Your task to perform on an android device: empty trash in google photos Image 0: 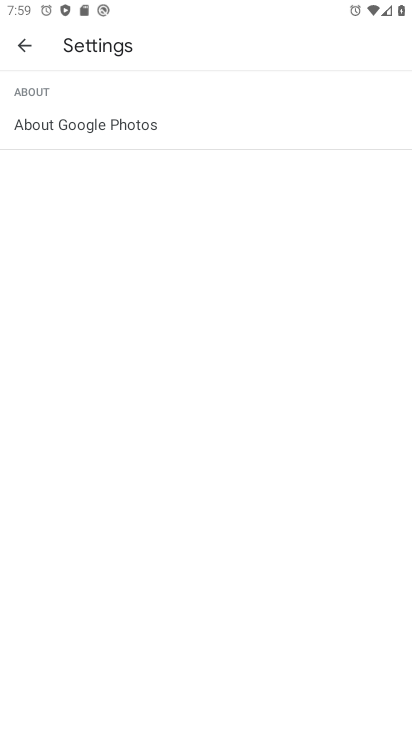
Step 0: press home button
Your task to perform on an android device: empty trash in google photos Image 1: 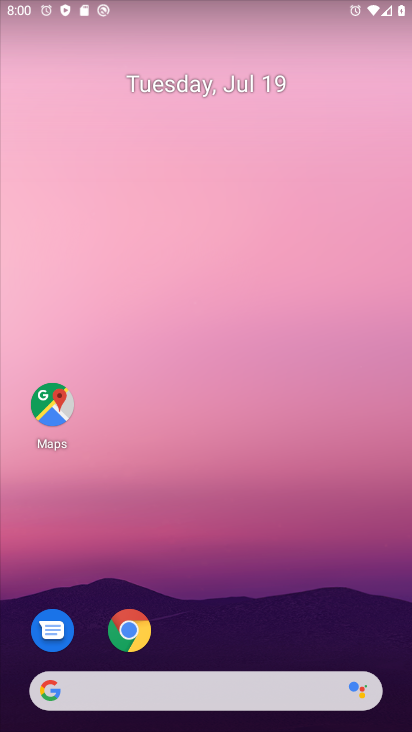
Step 1: drag from (235, 528) to (251, 228)
Your task to perform on an android device: empty trash in google photos Image 2: 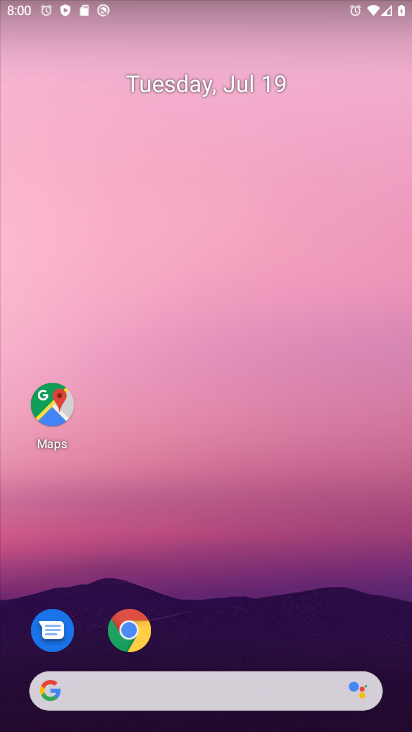
Step 2: drag from (268, 615) to (230, 272)
Your task to perform on an android device: empty trash in google photos Image 3: 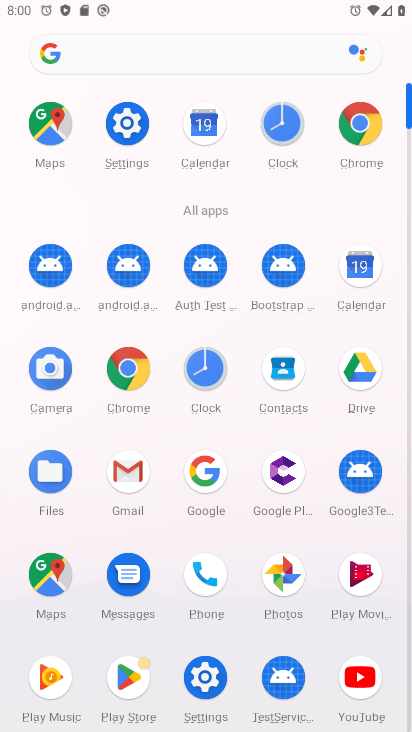
Step 3: click (269, 576)
Your task to perform on an android device: empty trash in google photos Image 4: 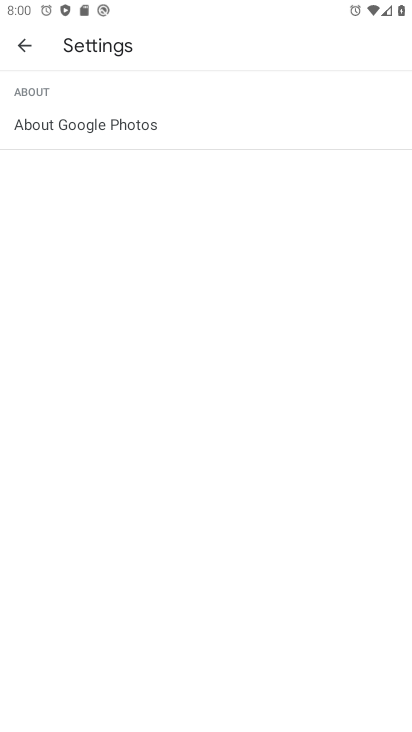
Step 4: click (21, 51)
Your task to perform on an android device: empty trash in google photos Image 5: 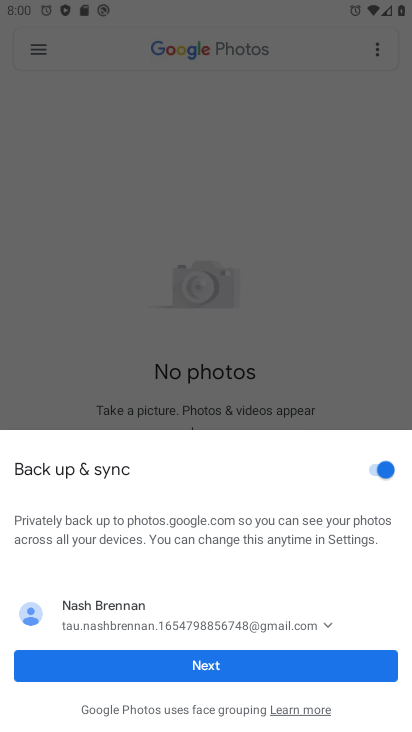
Step 5: click (227, 358)
Your task to perform on an android device: empty trash in google photos Image 6: 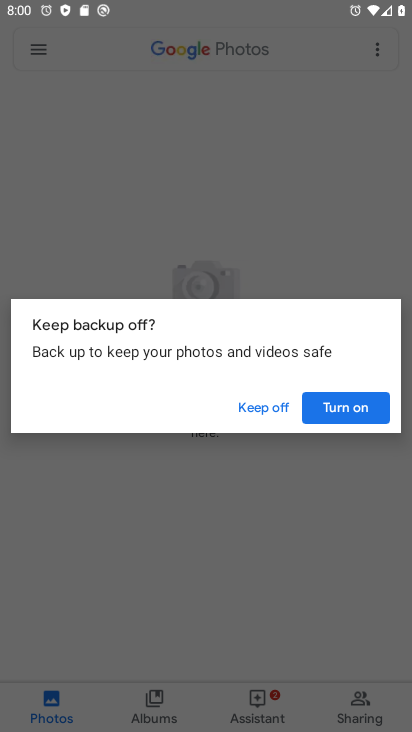
Step 6: click (268, 406)
Your task to perform on an android device: empty trash in google photos Image 7: 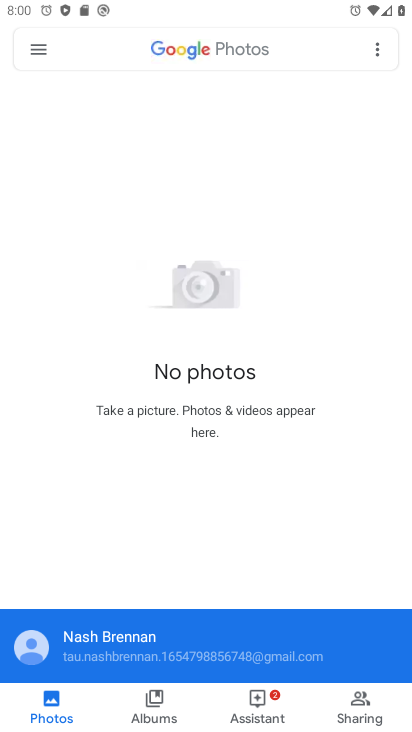
Step 7: click (35, 57)
Your task to perform on an android device: empty trash in google photos Image 8: 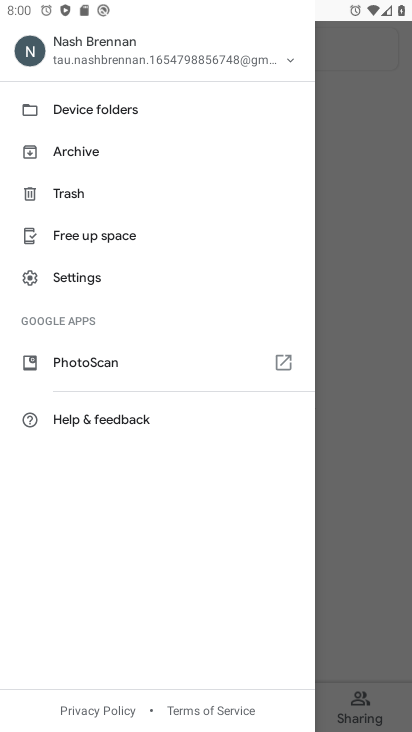
Step 8: click (87, 188)
Your task to perform on an android device: empty trash in google photos Image 9: 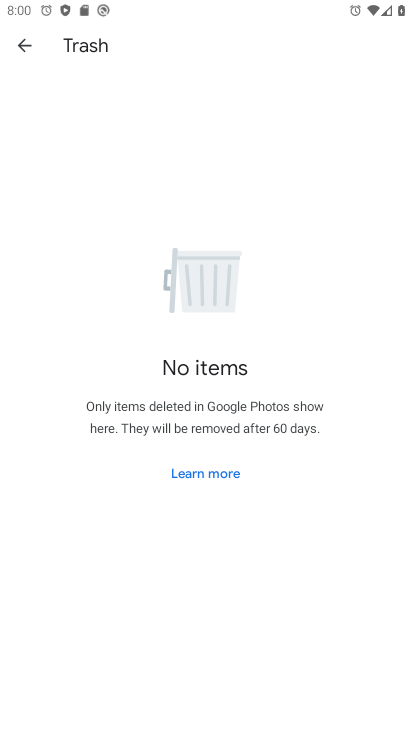
Step 9: task complete